Your task to perform on an android device: Open Google Chrome and click the shortcut for Amazon.com Image 0: 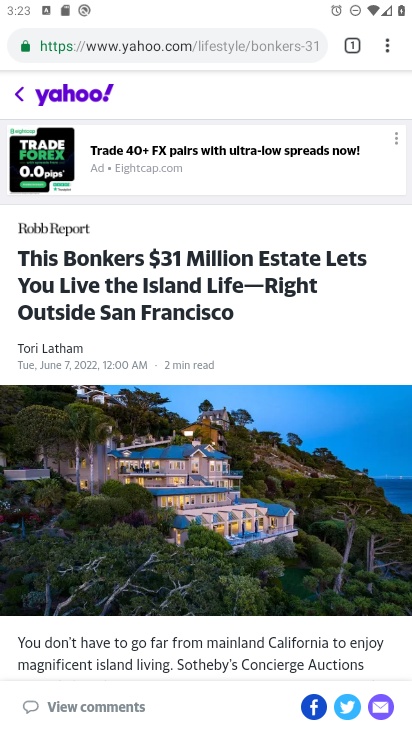
Step 0: press home button
Your task to perform on an android device: Open Google Chrome and click the shortcut for Amazon.com Image 1: 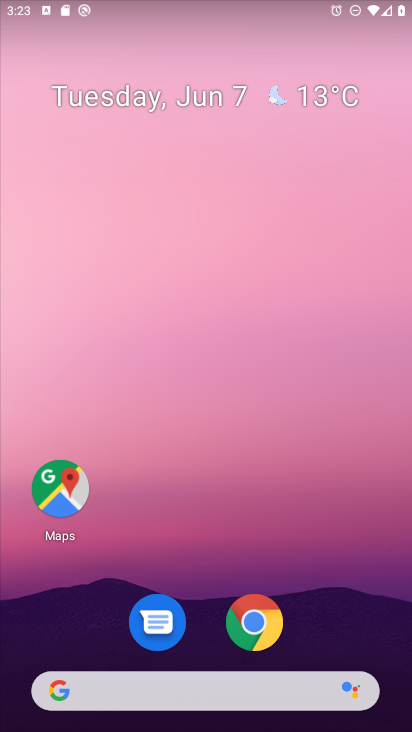
Step 1: click (253, 622)
Your task to perform on an android device: Open Google Chrome and click the shortcut for Amazon.com Image 2: 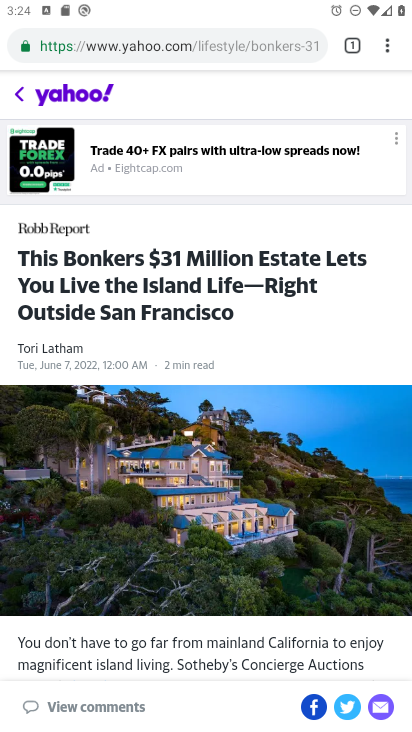
Step 2: click (352, 46)
Your task to perform on an android device: Open Google Chrome and click the shortcut for Amazon.com Image 3: 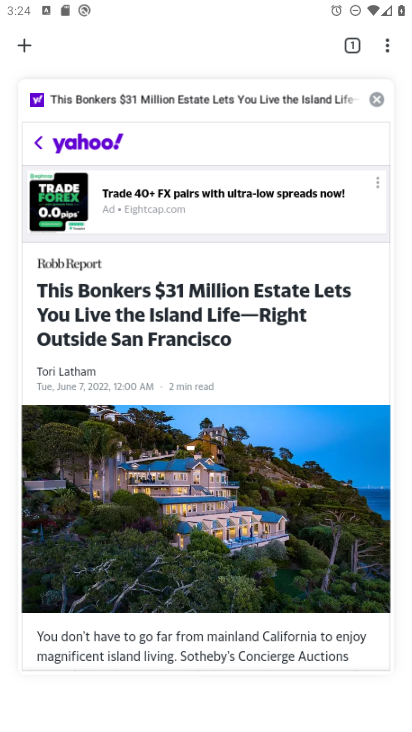
Step 3: click (24, 52)
Your task to perform on an android device: Open Google Chrome and click the shortcut for Amazon.com Image 4: 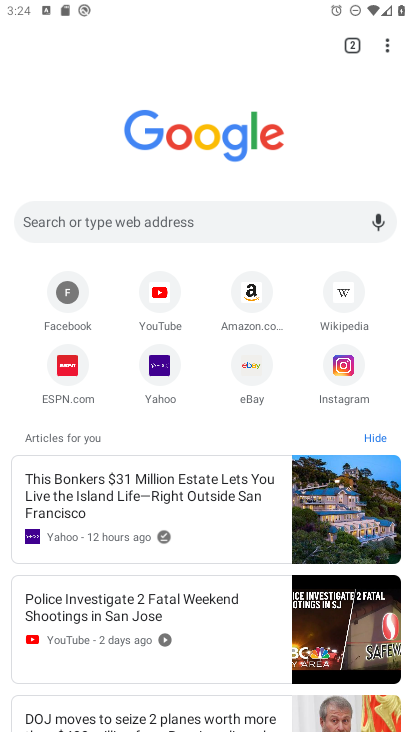
Step 4: click (259, 307)
Your task to perform on an android device: Open Google Chrome and click the shortcut for Amazon.com Image 5: 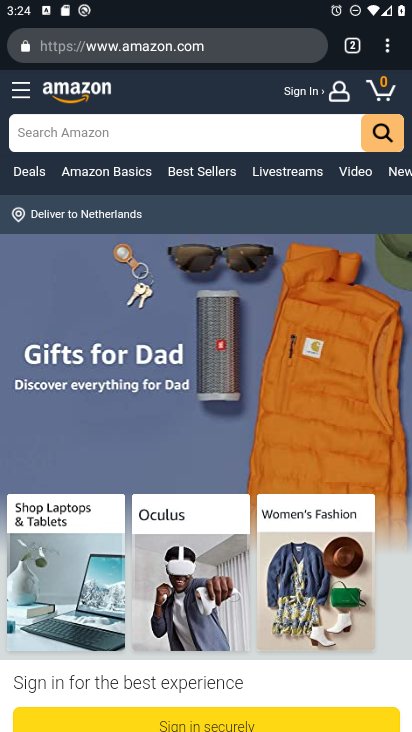
Step 5: task complete